Your task to perform on an android device: toggle airplane mode Image 0: 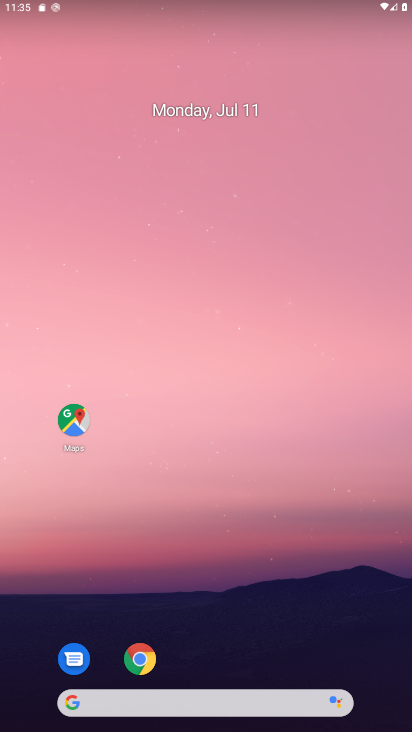
Step 0: drag from (338, 648) to (150, 181)
Your task to perform on an android device: toggle airplane mode Image 1: 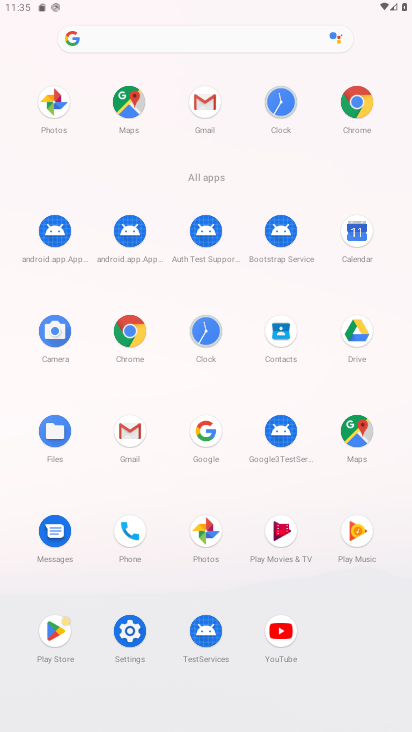
Step 1: click (132, 638)
Your task to perform on an android device: toggle airplane mode Image 2: 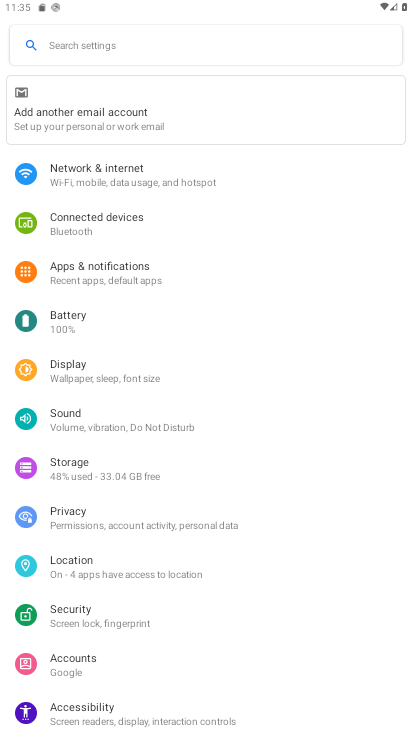
Step 2: click (193, 178)
Your task to perform on an android device: toggle airplane mode Image 3: 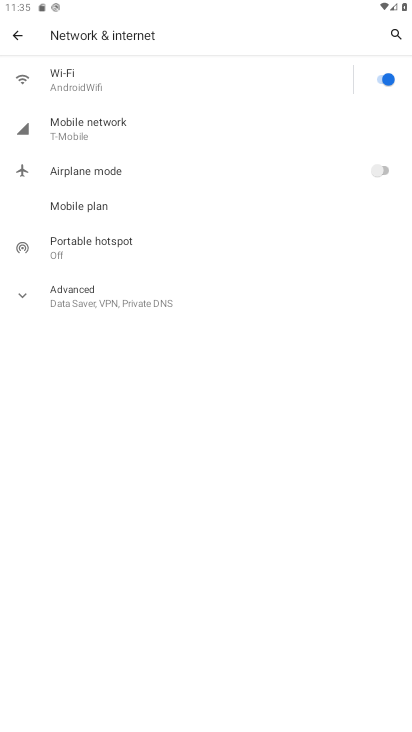
Step 3: click (382, 173)
Your task to perform on an android device: toggle airplane mode Image 4: 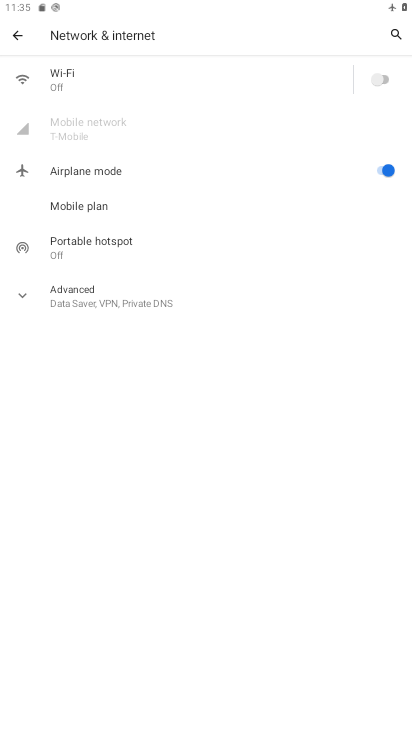
Step 4: click (384, 167)
Your task to perform on an android device: toggle airplane mode Image 5: 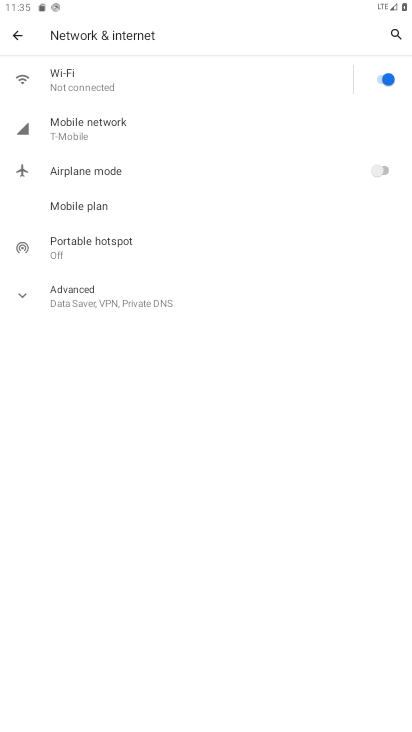
Step 5: click (384, 171)
Your task to perform on an android device: toggle airplane mode Image 6: 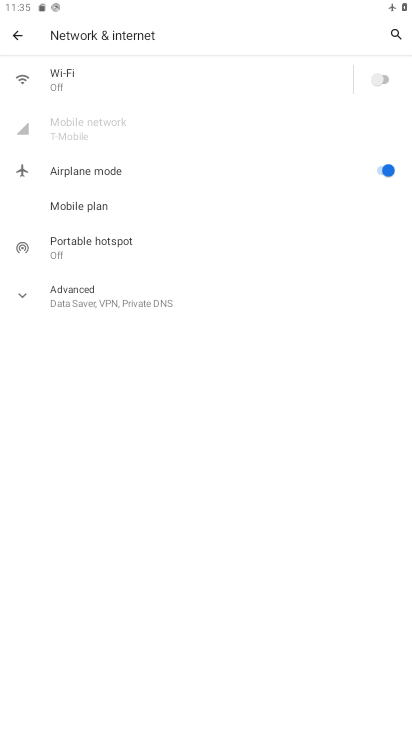
Step 6: task complete